Your task to perform on an android device: Open wifi settings Image 0: 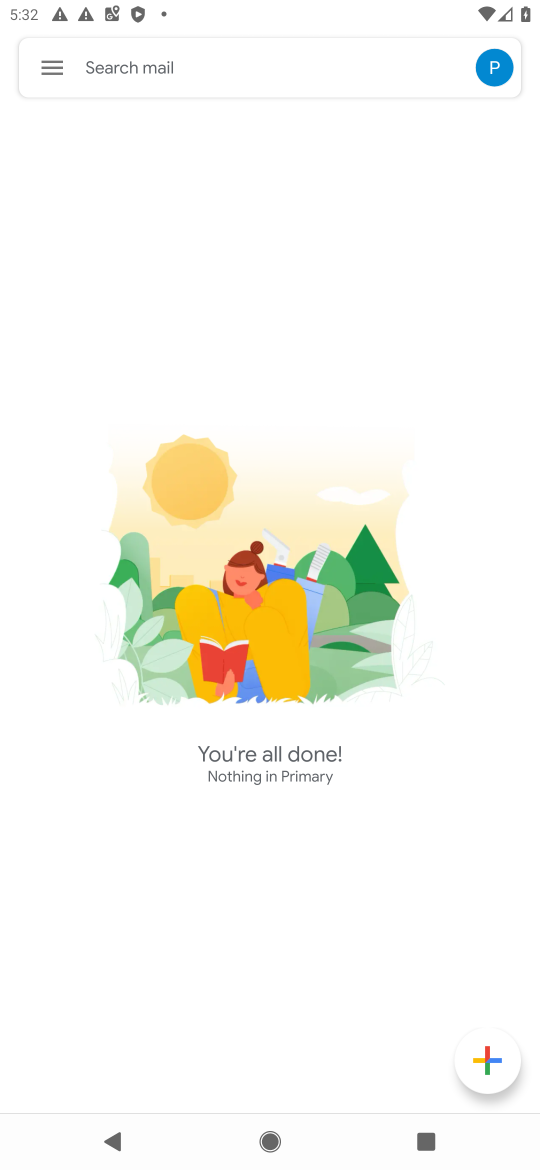
Step 0: press home button
Your task to perform on an android device: Open wifi settings Image 1: 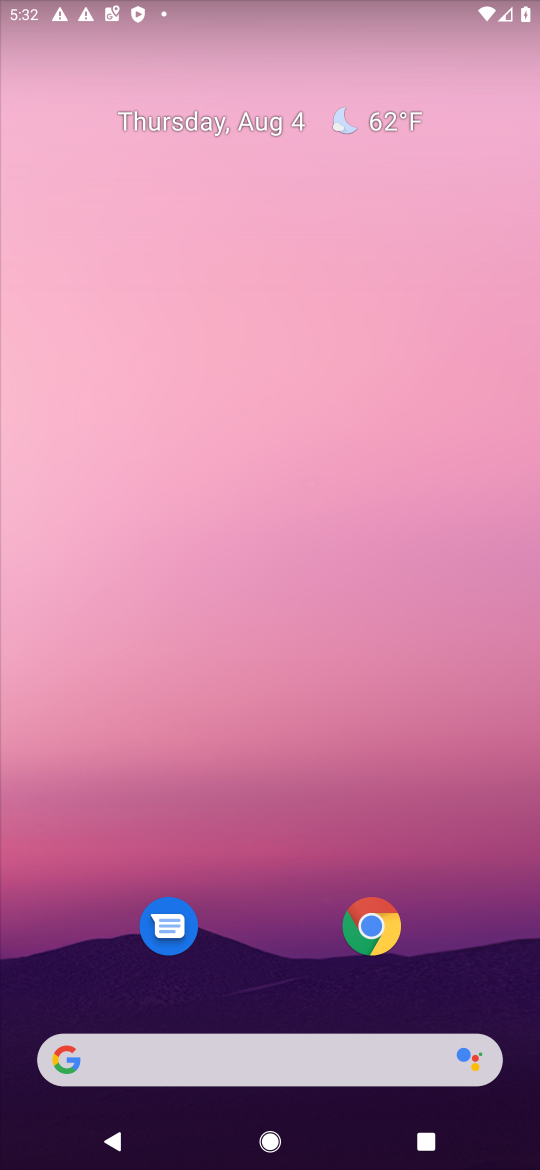
Step 1: drag from (292, 904) to (26, 52)
Your task to perform on an android device: Open wifi settings Image 2: 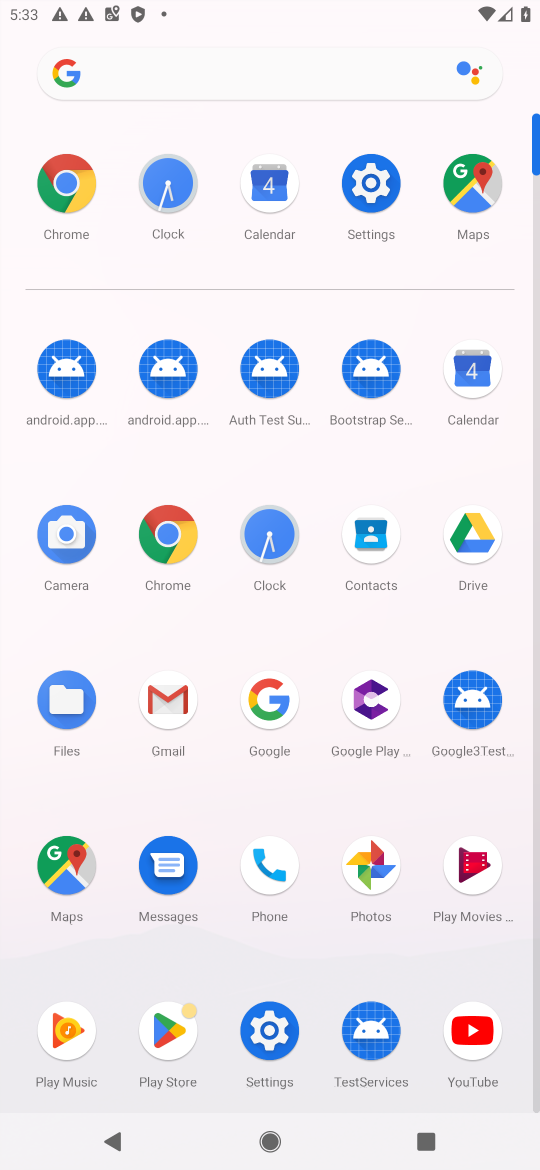
Step 2: click (360, 202)
Your task to perform on an android device: Open wifi settings Image 3: 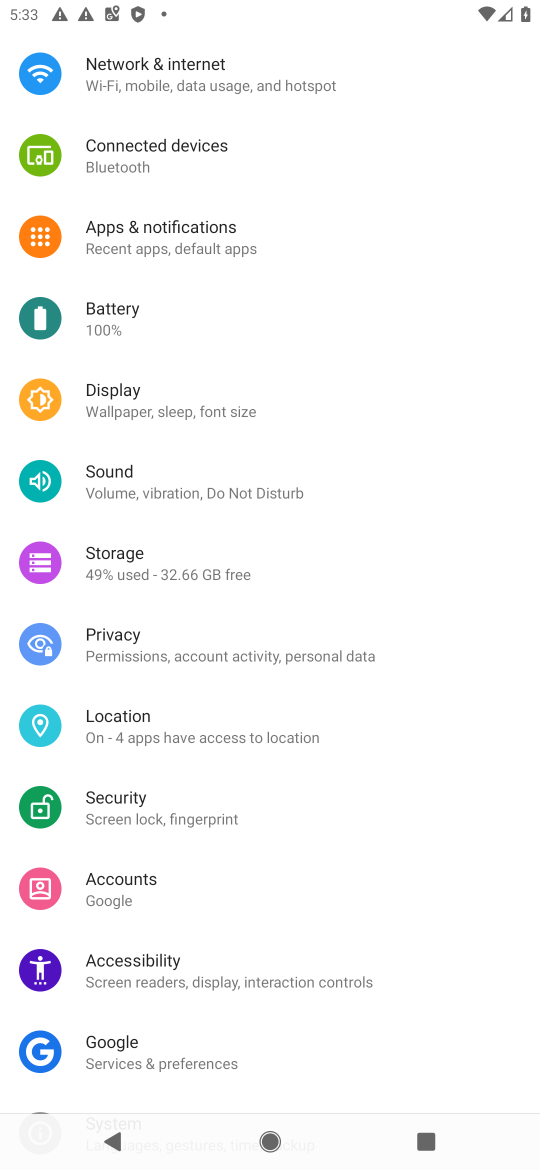
Step 3: drag from (300, 187) to (167, 938)
Your task to perform on an android device: Open wifi settings Image 4: 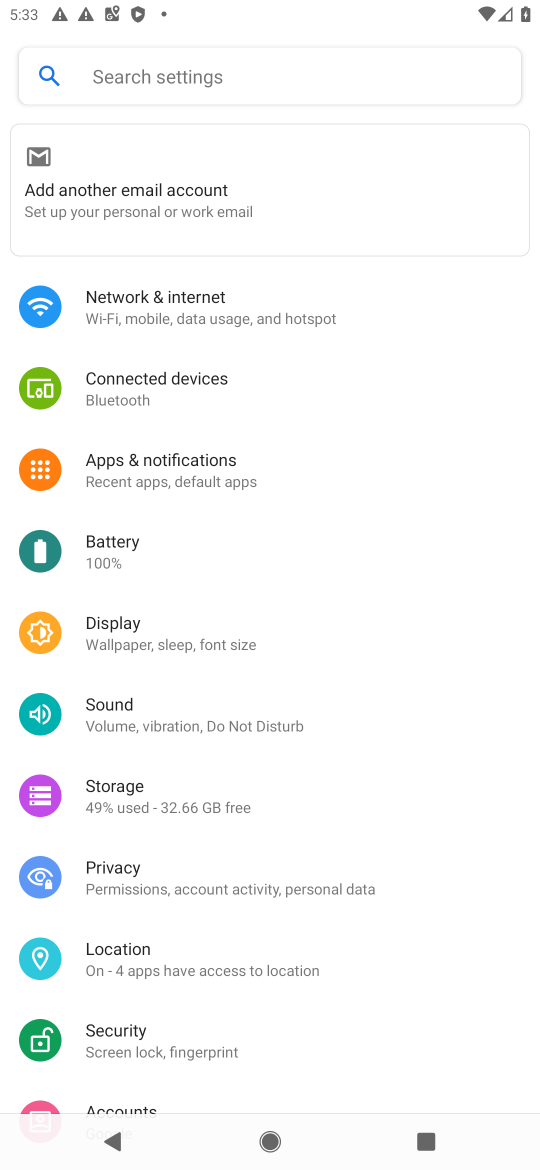
Step 4: click (169, 302)
Your task to perform on an android device: Open wifi settings Image 5: 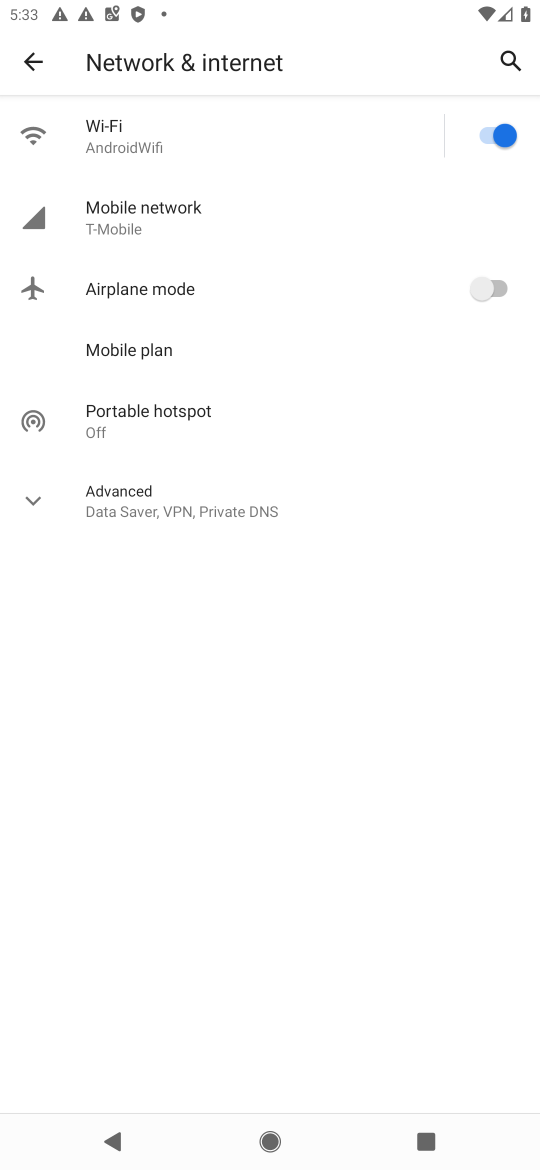
Step 5: click (118, 130)
Your task to perform on an android device: Open wifi settings Image 6: 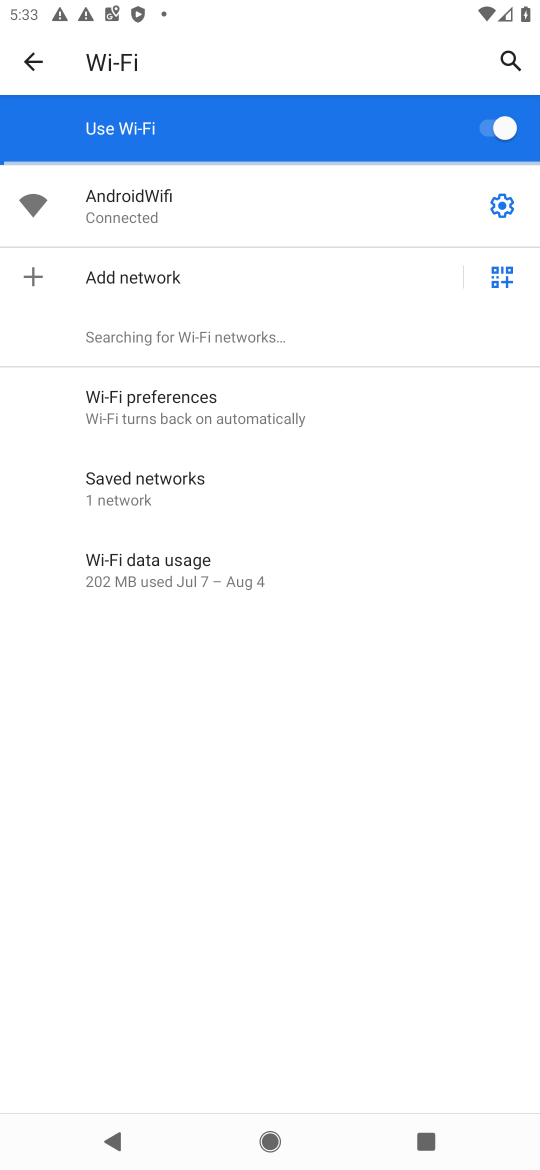
Step 6: click (95, 203)
Your task to perform on an android device: Open wifi settings Image 7: 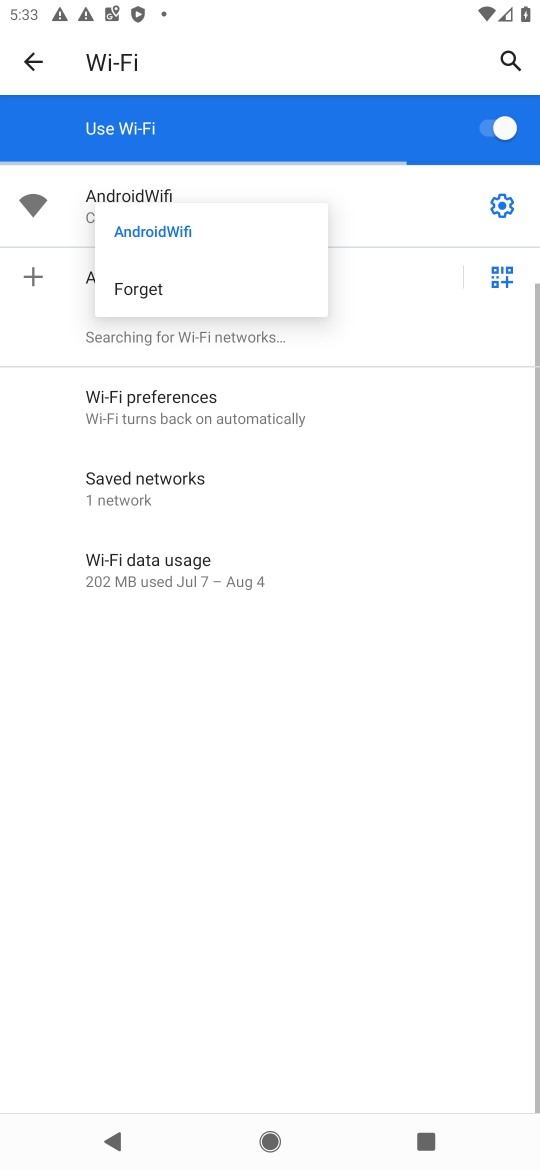
Step 7: click (67, 204)
Your task to perform on an android device: Open wifi settings Image 8: 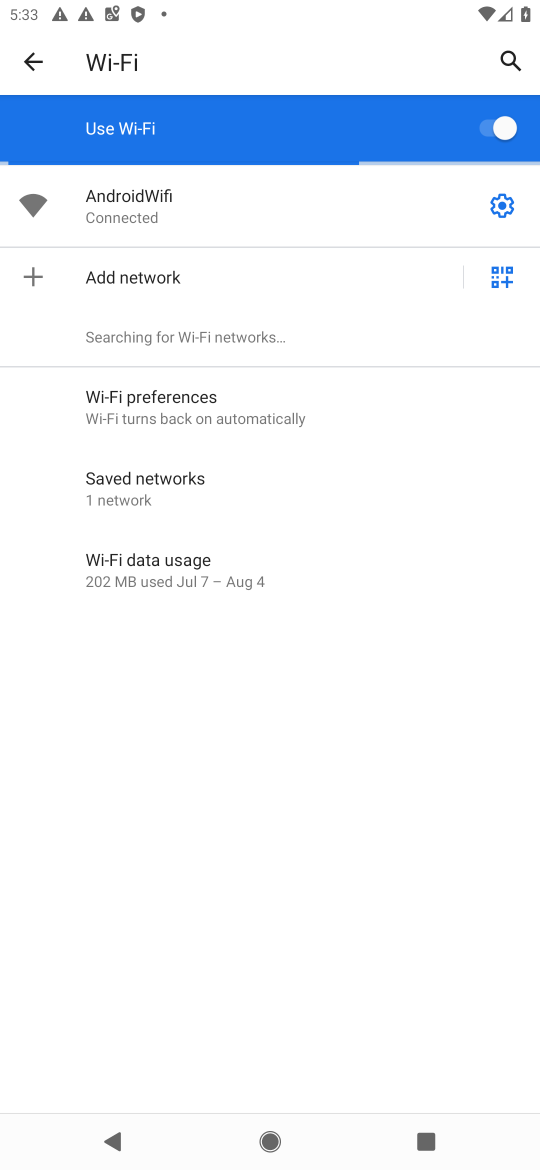
Step 8: click (146, 200)
Your task to perform on an android device: Open wifi settings Image 9: 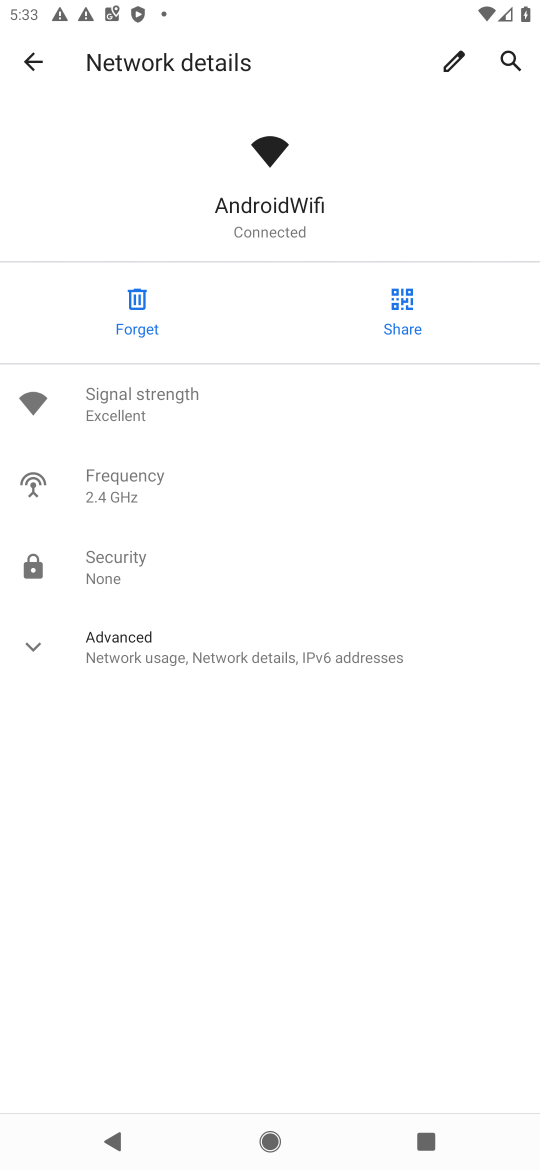
Step 9: task complete